Your task to perform on an android device: Open maps Image 0: 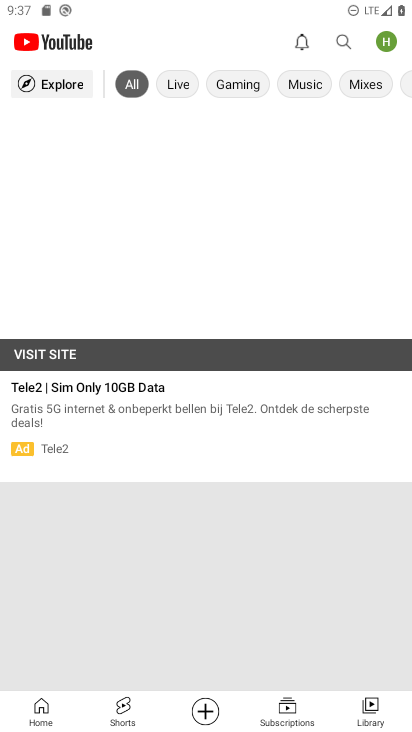
Step 0: press home button
Your task to perform on an android device: Open maps Image 1: 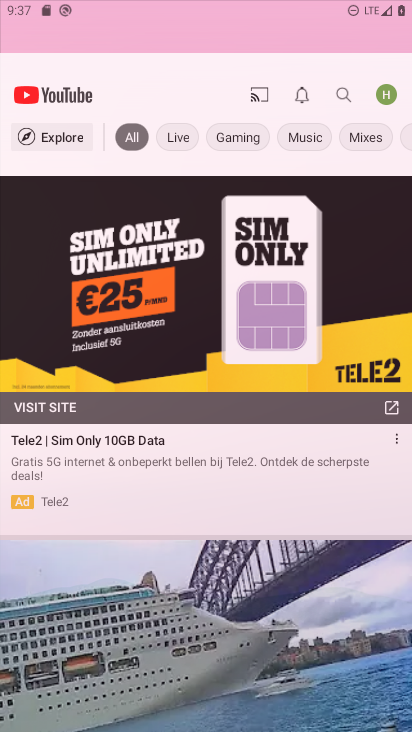
Step 1: drag from (370, 667) to (142, 75)
Your task to perform on an android device: Open maps Image 2: 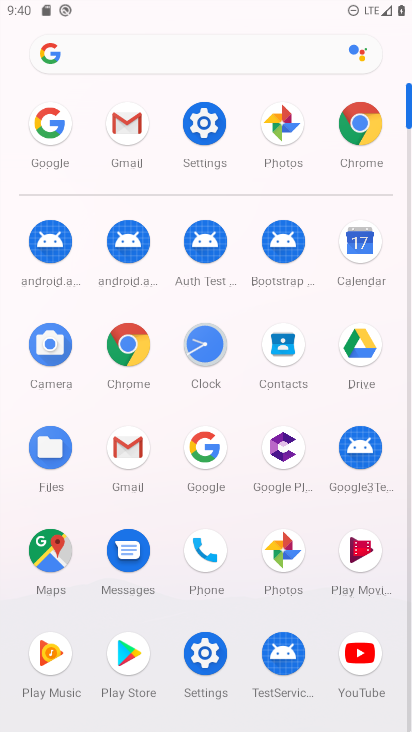
Step 2: click (51, 517)
Your task to perform on an android device: Open maps Image 3: 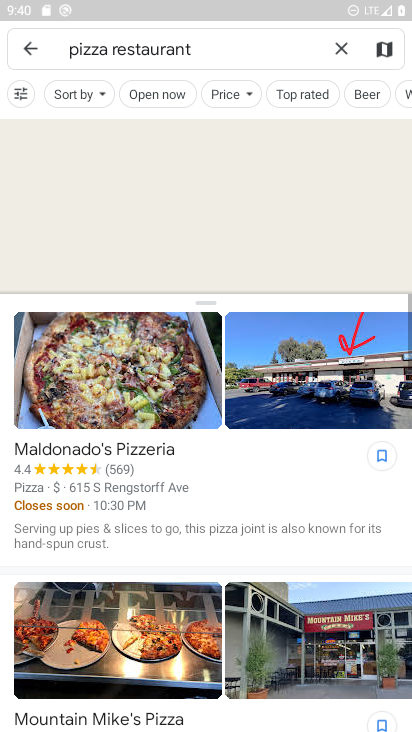
Step 3: click (342, 51)
Your task to perform on an android device: Open maps Image 4: 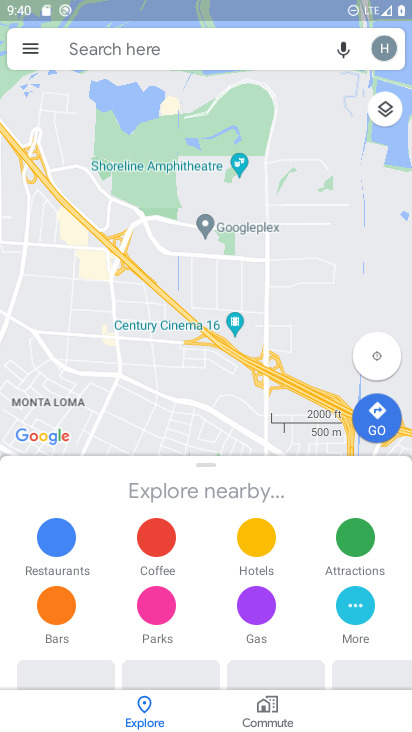
Step 4: task complete